Your task to perform on an android device: change the clock display to digital Image 0: 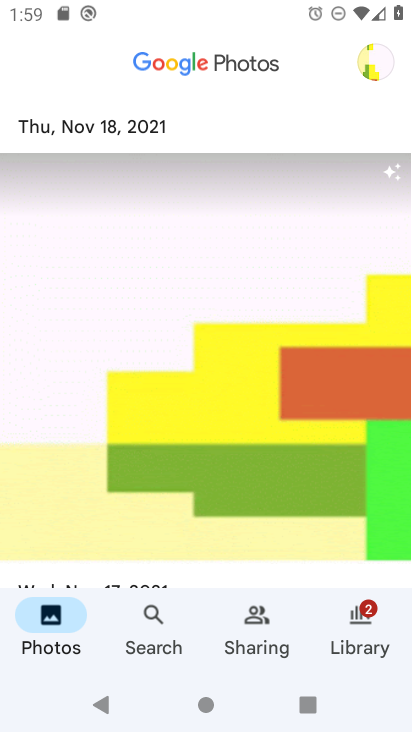
Step 0: press home button
Your task to perform on an android device: change the clock display to digital Image 1: 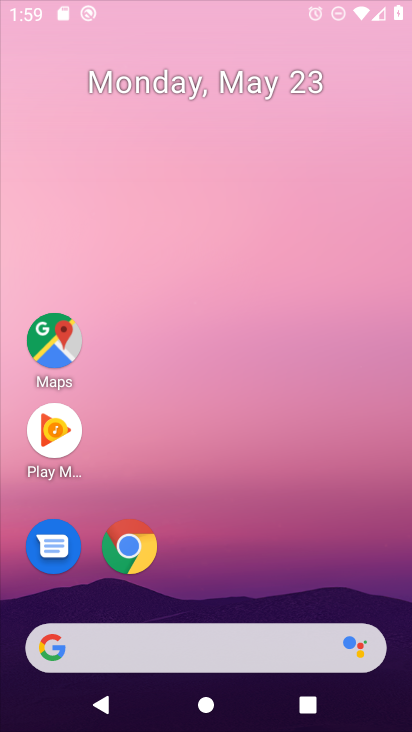
Step 1: drag from (150, 668) to (261, 171)
Your task to perform on an android device: change the clock display to digital Image 2: 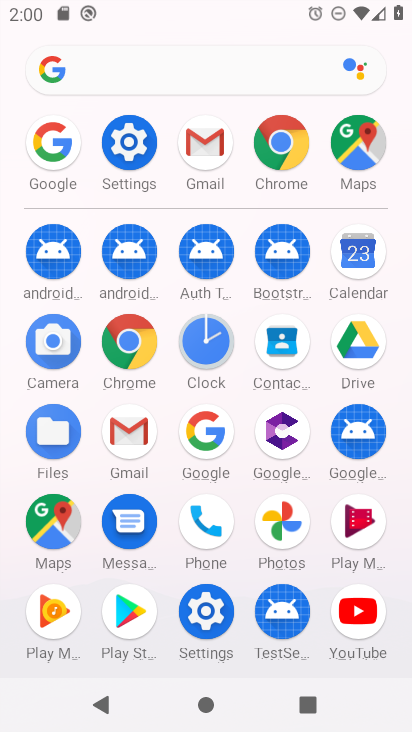
Step 2: click (203, 359)
Your task to perform on an android device: change the clock display to digital Image 3: 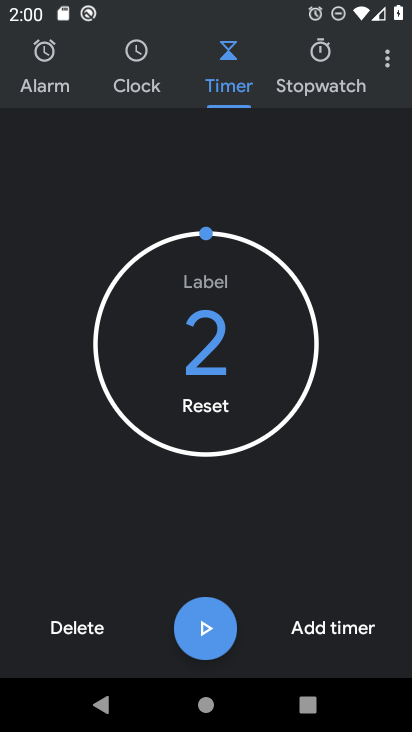
Step 3: click (388, 64)
Your task to perform on an android device: change the clock display to digital Image 4: 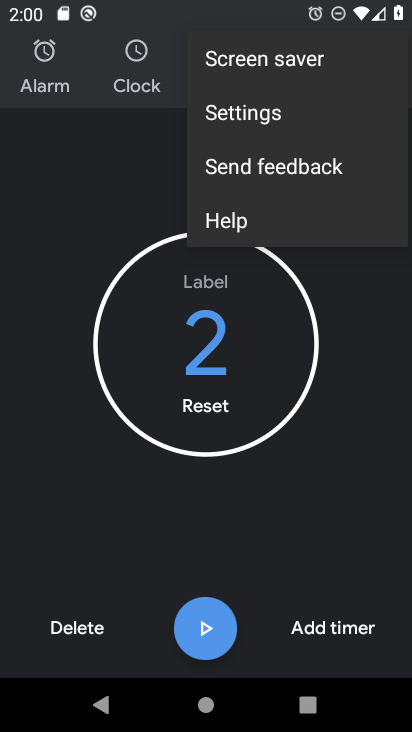
Step 4: click (254, 106)
Your task to perform on an android device: change the clock display to digital Image 5: 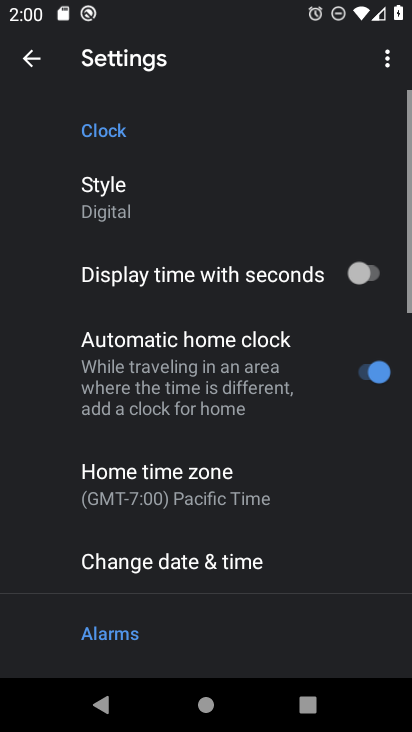
Step 5: click (115, 200)
Your task to perform on an android device: change the clock display to digital Image 6: 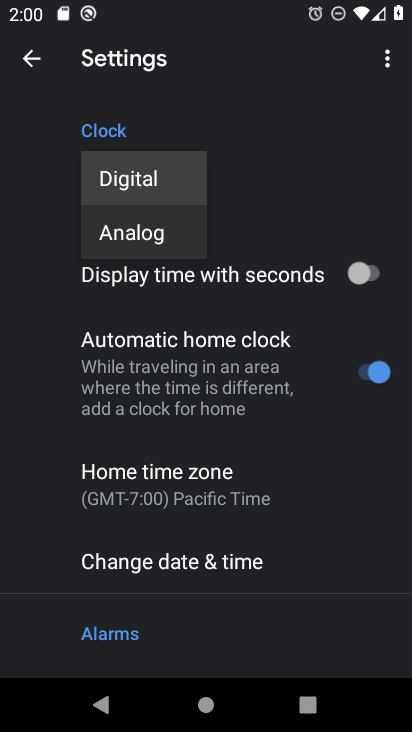
Step 6: task complete